Your task to perform on an android device: Open settings Image 0: 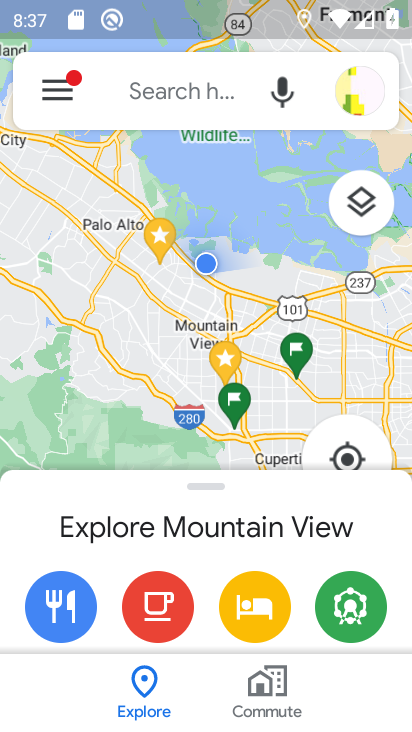
Step 0: click (52, 93)
Your task to perform on an android device: Open settings Image 1: 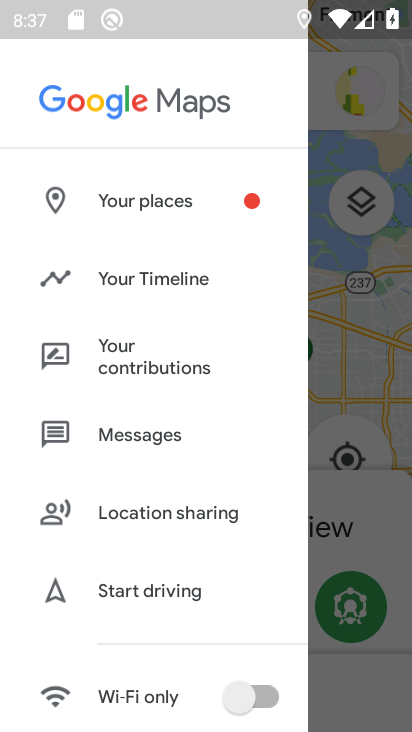
Step 1: drag from (134, 633) to (136, 213)
Your task to perform on an android device: Open settings Image 2: 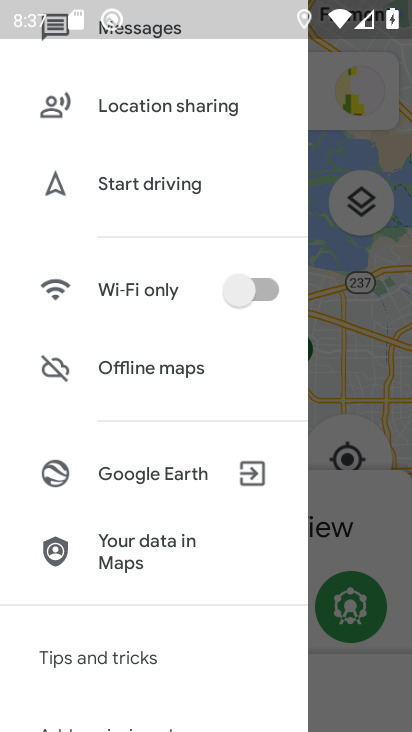
Step 2: drag from (130, 628) to (124, 218)
Your task to perform on an android device: Open settings Image 3: 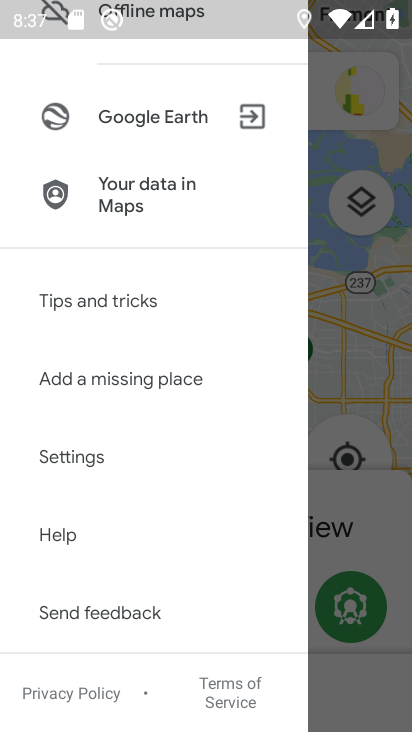
Step 3: click (75, 453)
Your task to perform on an android device: Open settings Image 4: 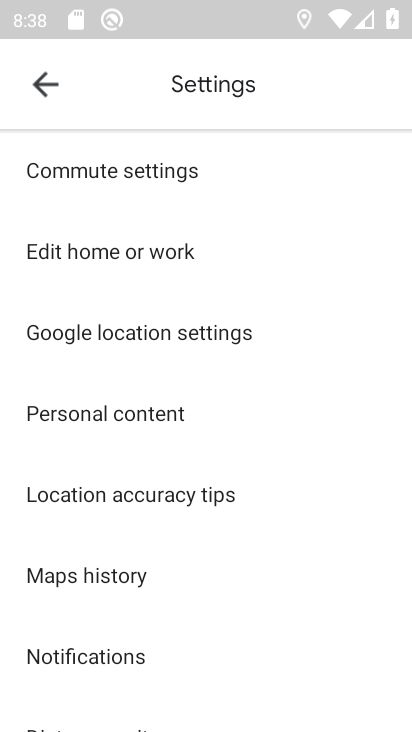
Step 4: task complete